Your task to perform on an android device: Open Chrome and go to the settings page Image 0: 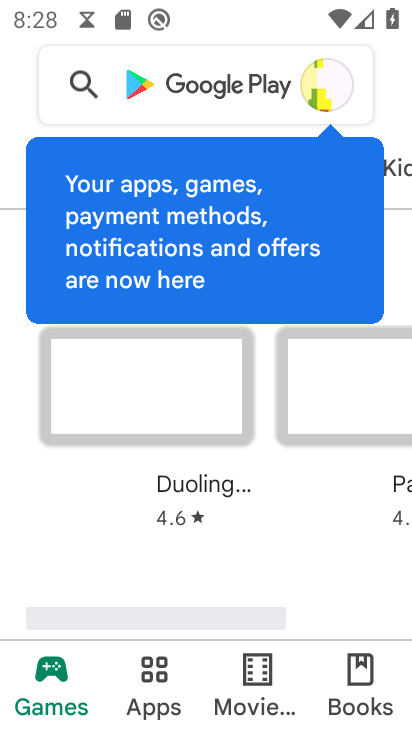
Step 0: press home button
Your task to perform on an android device: Open Chrome and go to the settings page Image 1: 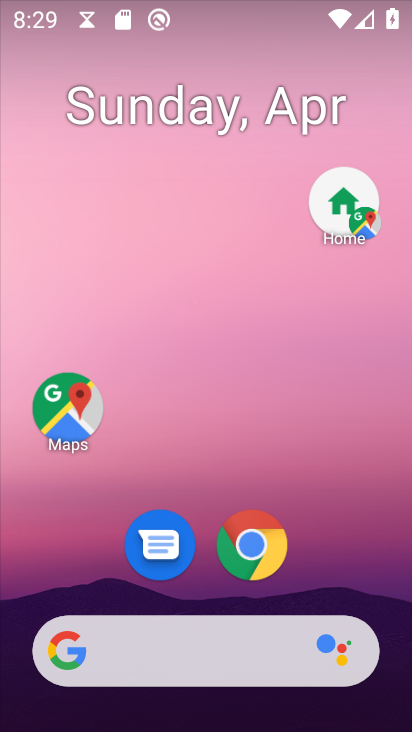
Step 1: drag from (331, 522) to (286, 133)
Your task to perform on an android device: Open Chrome and go to the settings page Image 2: 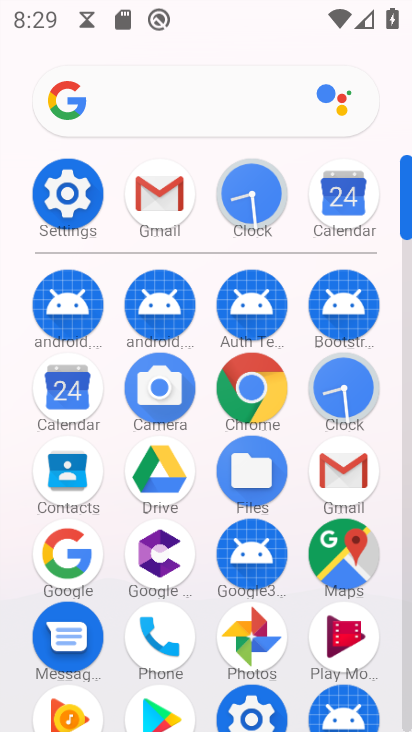
Step 2: click (251, 385)
Your task to perform on an android device: Open Chrome and go to the settings page Image 3: 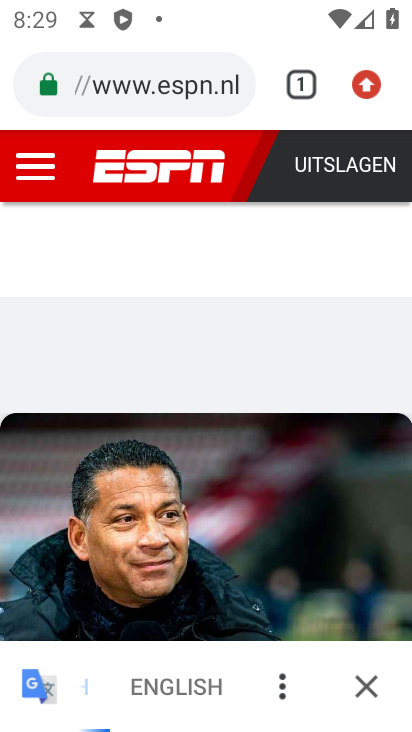
Step 3: click (370, 88)
Your task to perform on an android device: Open Chrome and go to the settings page Image 4: 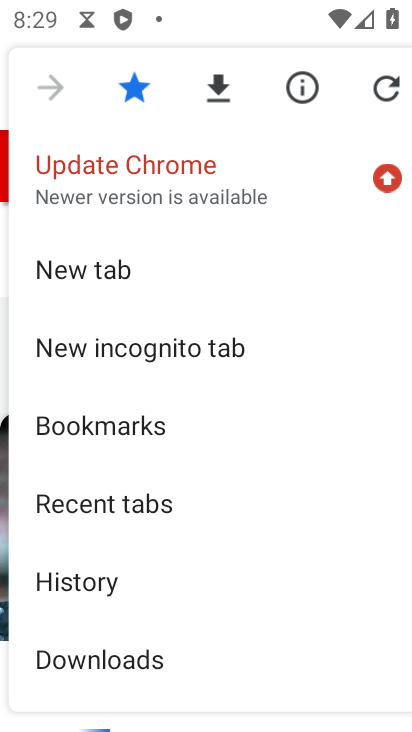
Step 4: drag from (143, 626) to (234, 202)
Your task to perform on an android device: Open Chrome and go to the settings page Image 5: 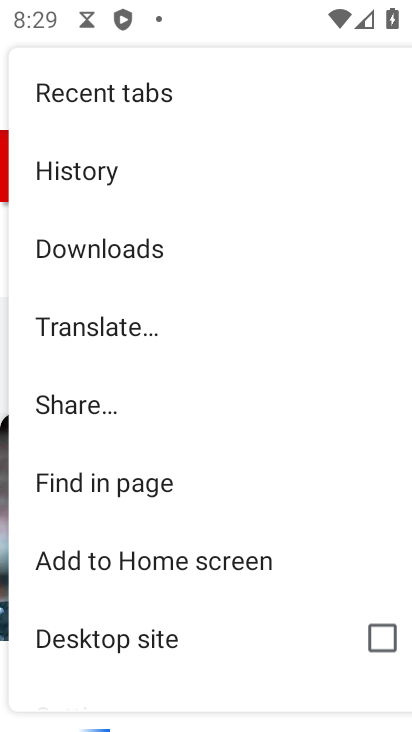
Step 5: drag from (191, 618) to (241, 146)
Your task to perform on an android device: Open Chrome and go to the settings page Image 6: 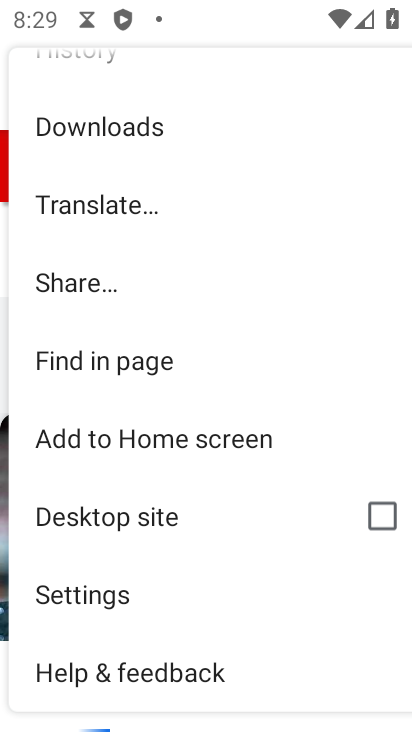
Step 6: click (135, 604)
Your task to perform on an android device: Open Chrome and go to the settings page Image 7: 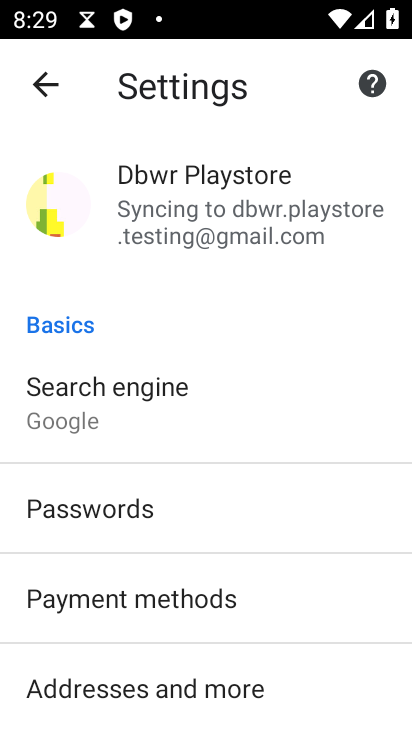
Step 7: task complete